Your task to perform on an android device: Open ESPN.com Image 0: 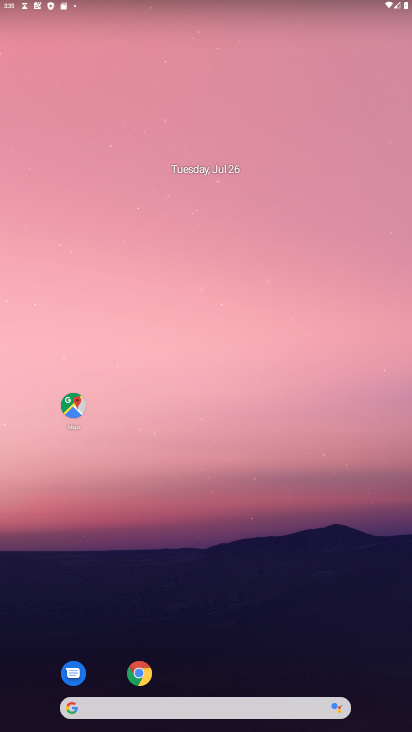
Step 0: click (141, 675)
Your task to perform on an android device: Open ESPN.com Image 1: 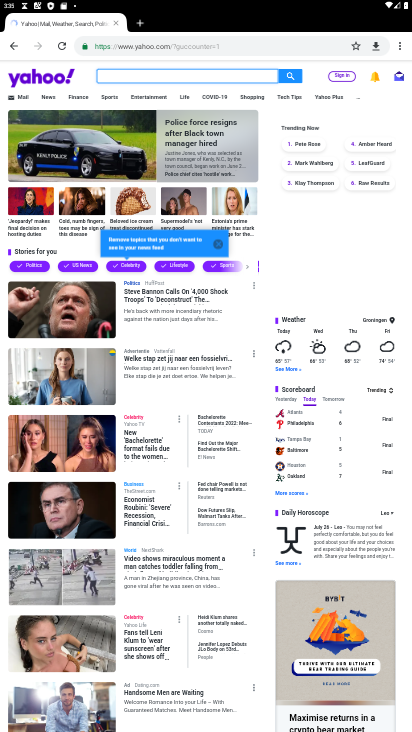
Step 1: click (273, 48)
Your task to perform on an android device: Open ESPN.com Image 2: 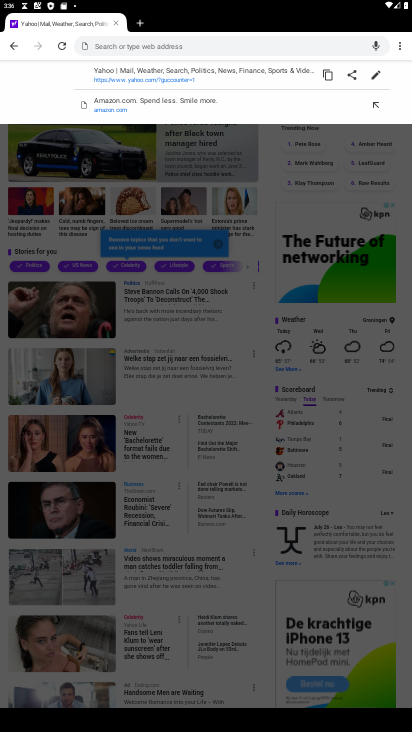
Step 2: type "ESPN.com"
Your task to perform on an android device: Open ESPN.com Image 3: 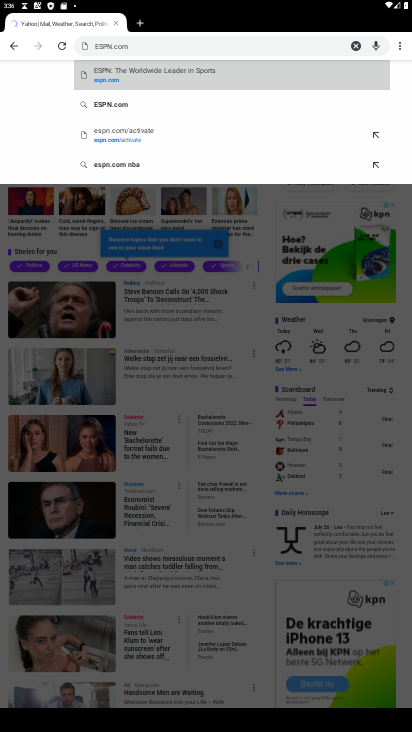
Step 3: click (111, 104)
Your task to perform on an android device: Open ESPN.com Image 4: 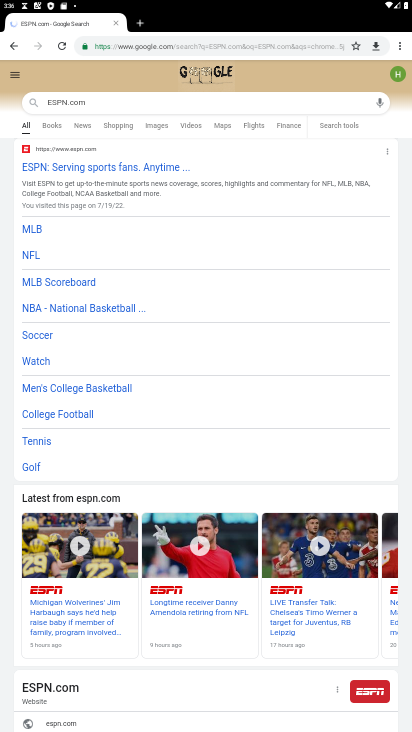
Step 4: click (97, 167)
Your task to perform on an android device: Open ESPN.com Image 5: 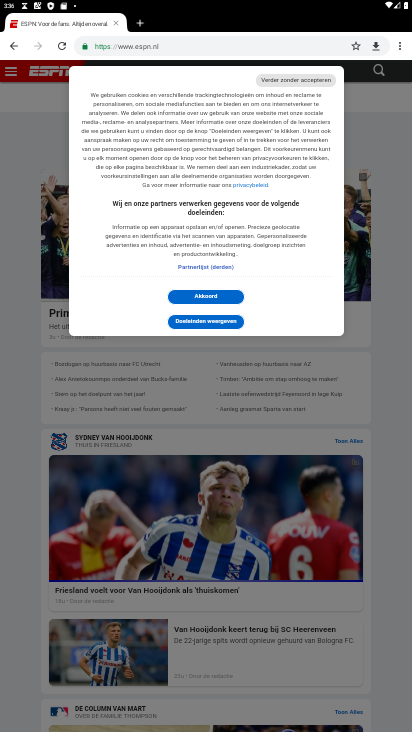
Step 5: task complete